Your task to perform on an android device: Open the web browser Image 0: 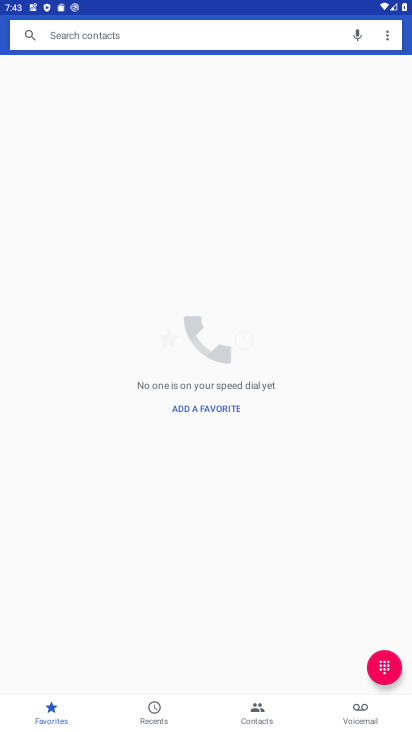
Step 0: press home button
Your task to perform on an android device: Open the web browser Image 1: 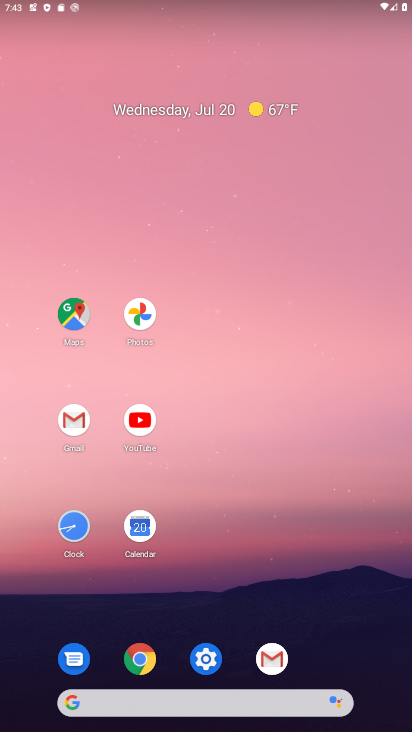
Step 1: click (142, 660)
Your task to perform on an android device: Open the web browser Image 2: 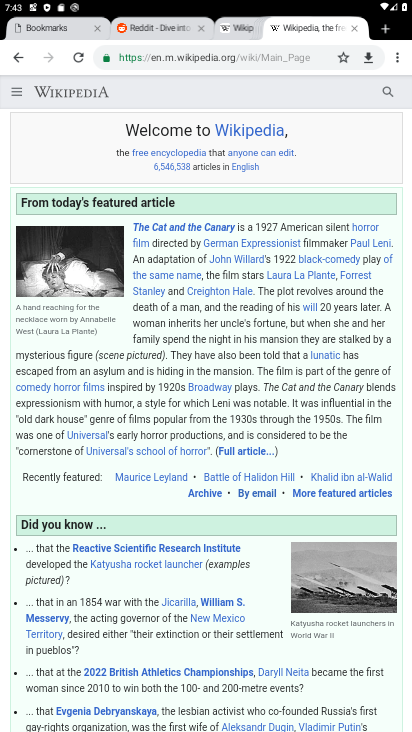
Step 2: task complete